Your task to perform on an android device: Open internet settings Image 0: 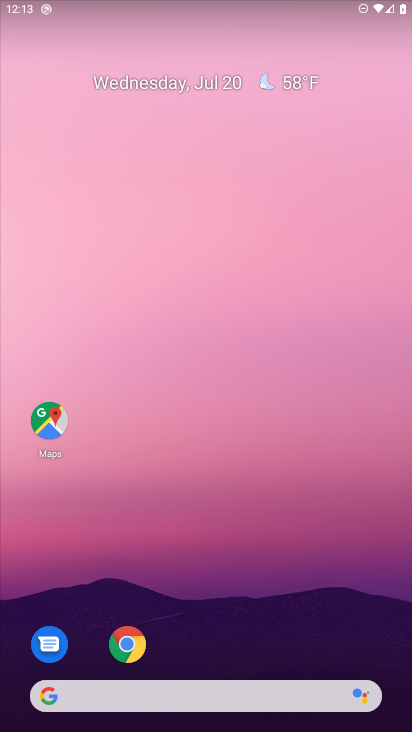
Step 0: drag from (23, 701) to (245, 20)
Your task to perform on an android device: Open internet settings Image 1: 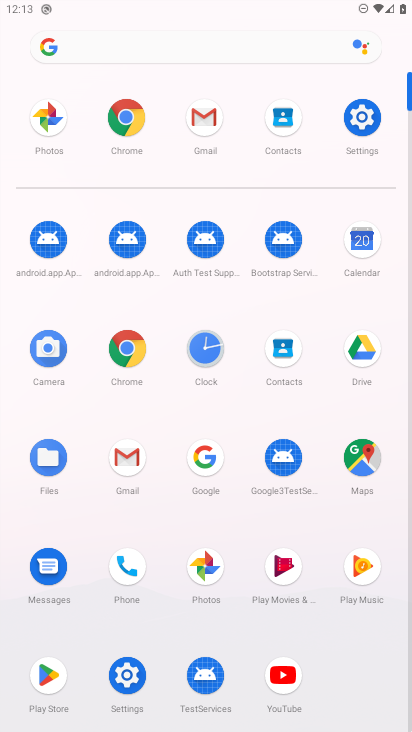
Step 1: click (127, 688)
Your task to perform on an android device: Open internet settings Image 2: 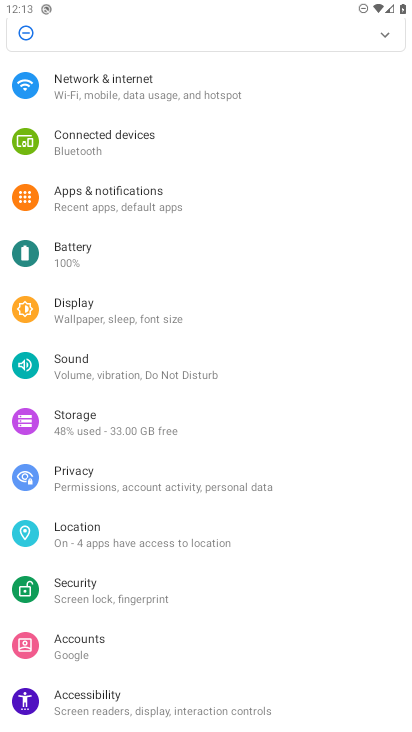
Step 2: click (119, 84)
Your task to perform on an android device: Open internet settings Image 3: 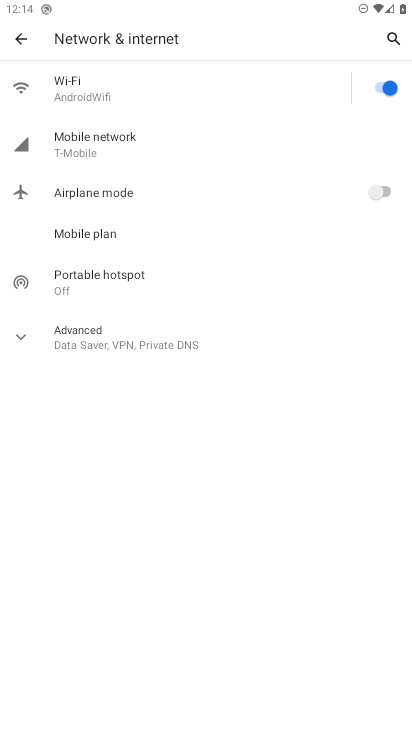
Step 3: task complete